Your task to perform on an android device: turn on showing notifications on the lock screen Image 0: 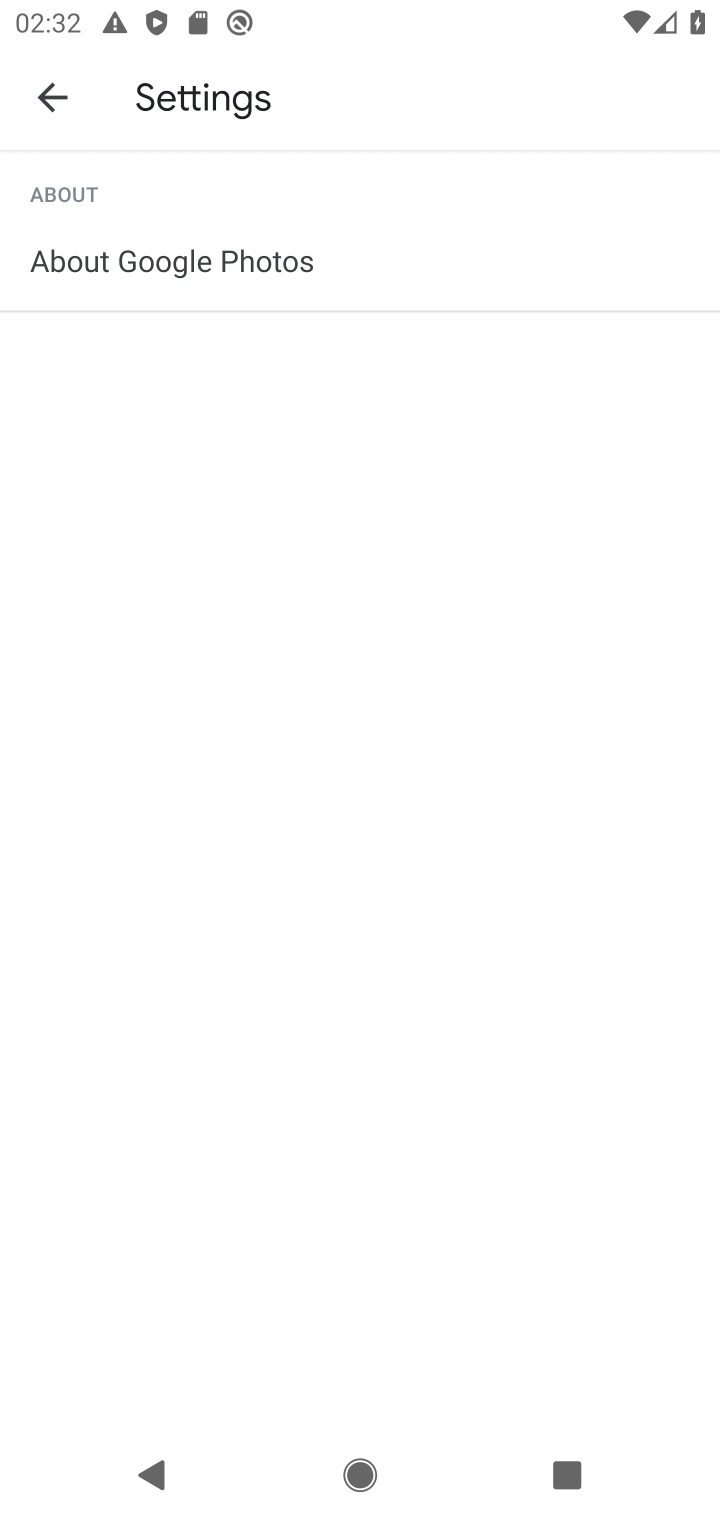
Step 0: press home button
Your task to perform on an android device: turn on showing notifications on the lock screen Image 1: 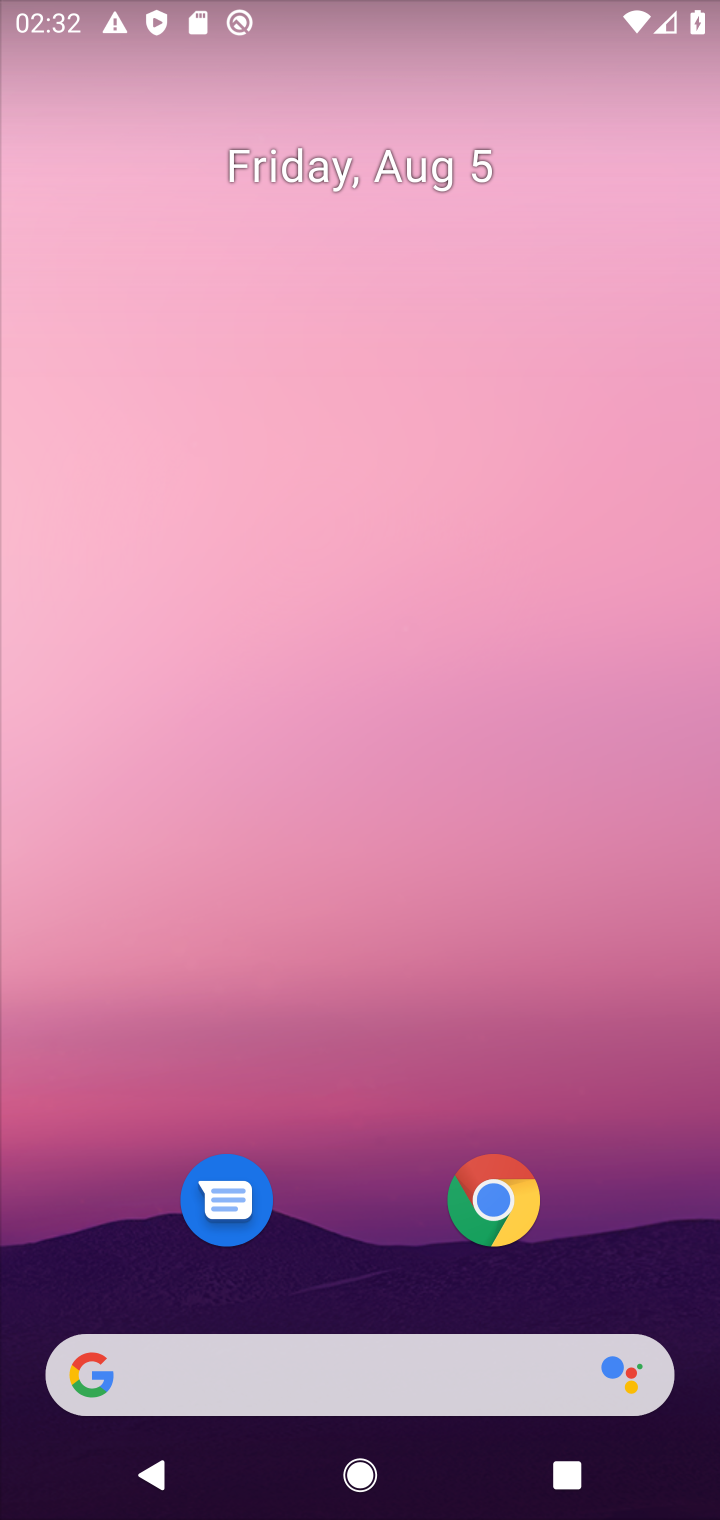
Step 1: drag from (329, 1215) to (228, 327)
Your task to perform on an android device: turn on showing notifications on the lock screen Image 2: 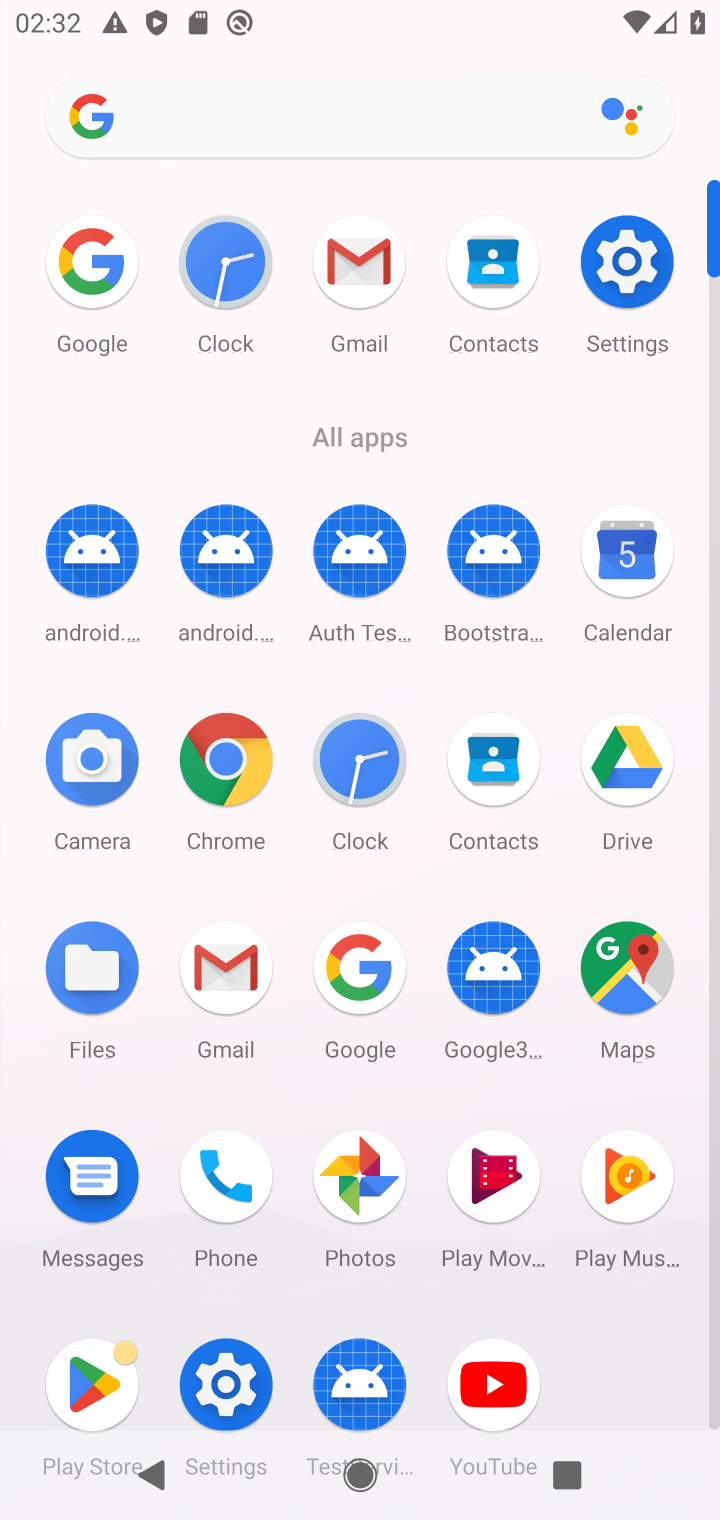
Step 2: click (602, 280)
Your task to perform on an android device: turn on showing notifications on the lock screen Image 3: 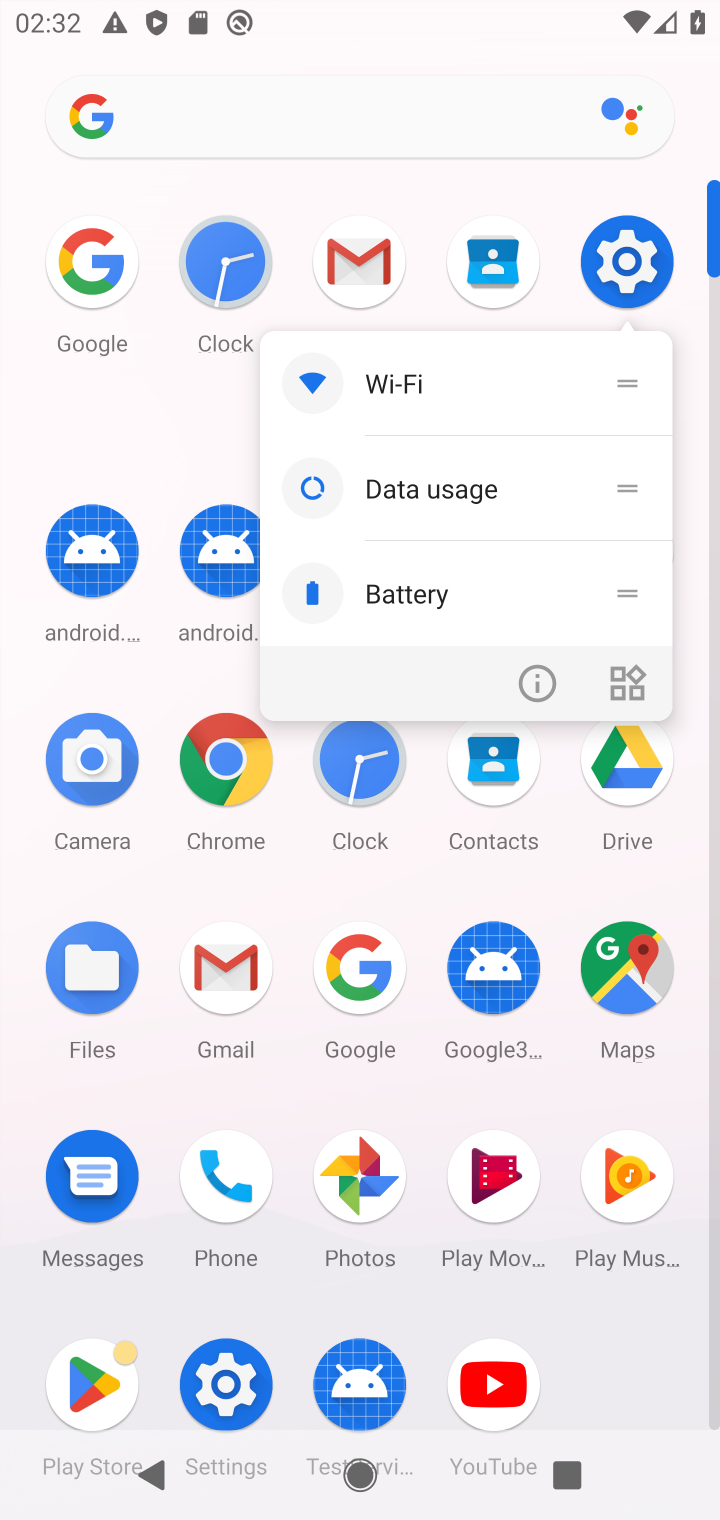
Step 3: click (602, 280)
Your task to perform on an android device: turn on showing notifications on the lock screen Image 4: 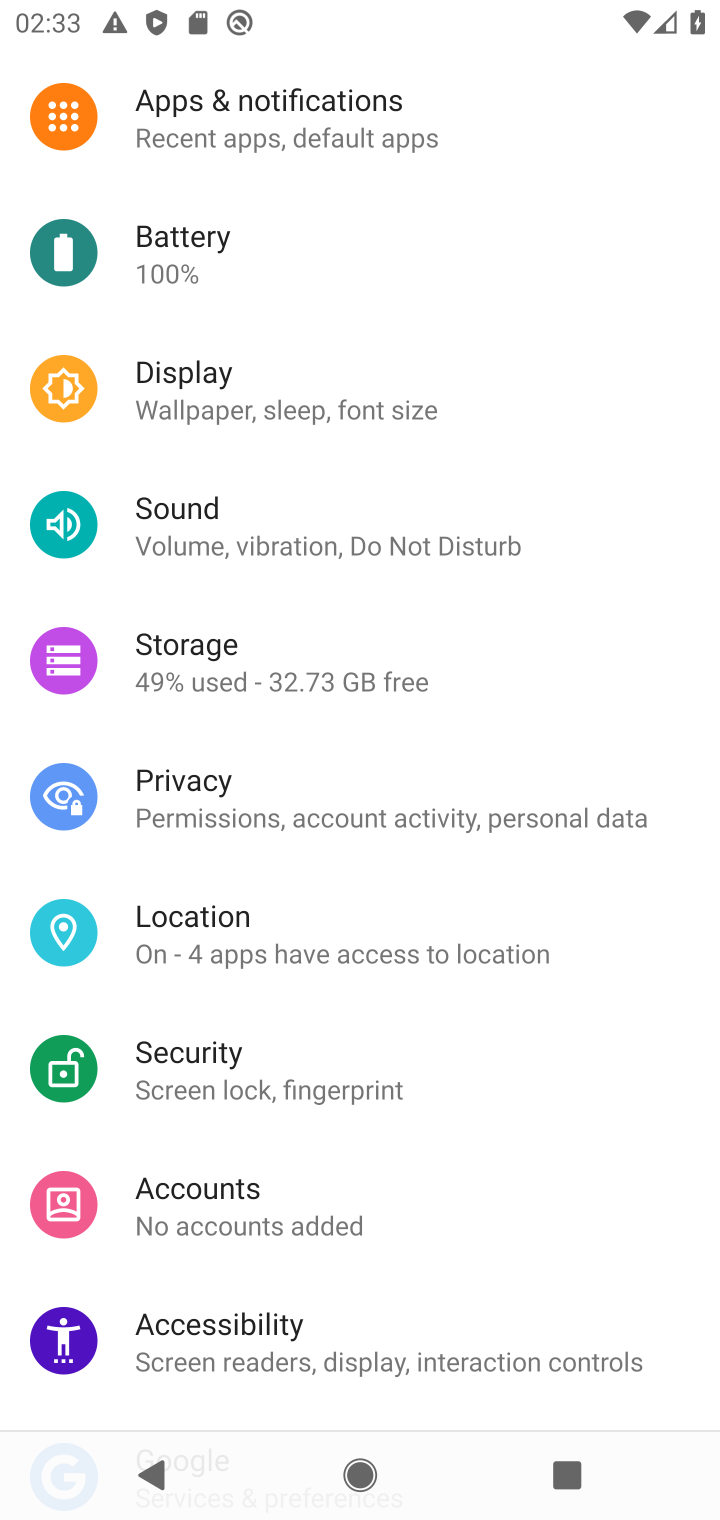
Step 4: click (416, 115)
Your task to perform on an android device: turn on showing notifications on the lock screen Image 5: 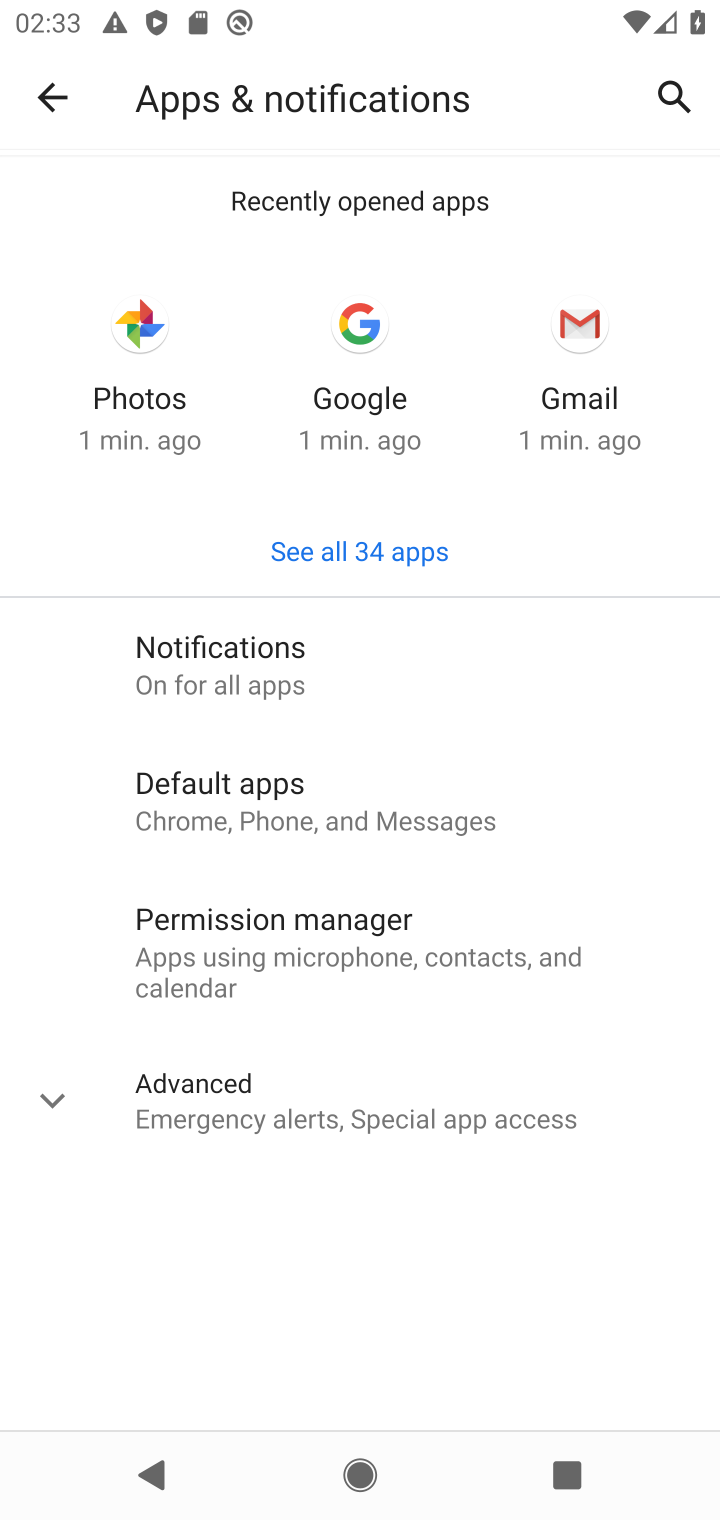
Step 5: click (303, 677)
Your task to perform on an android device: turn on showing notifications on the lock screen Image 6: 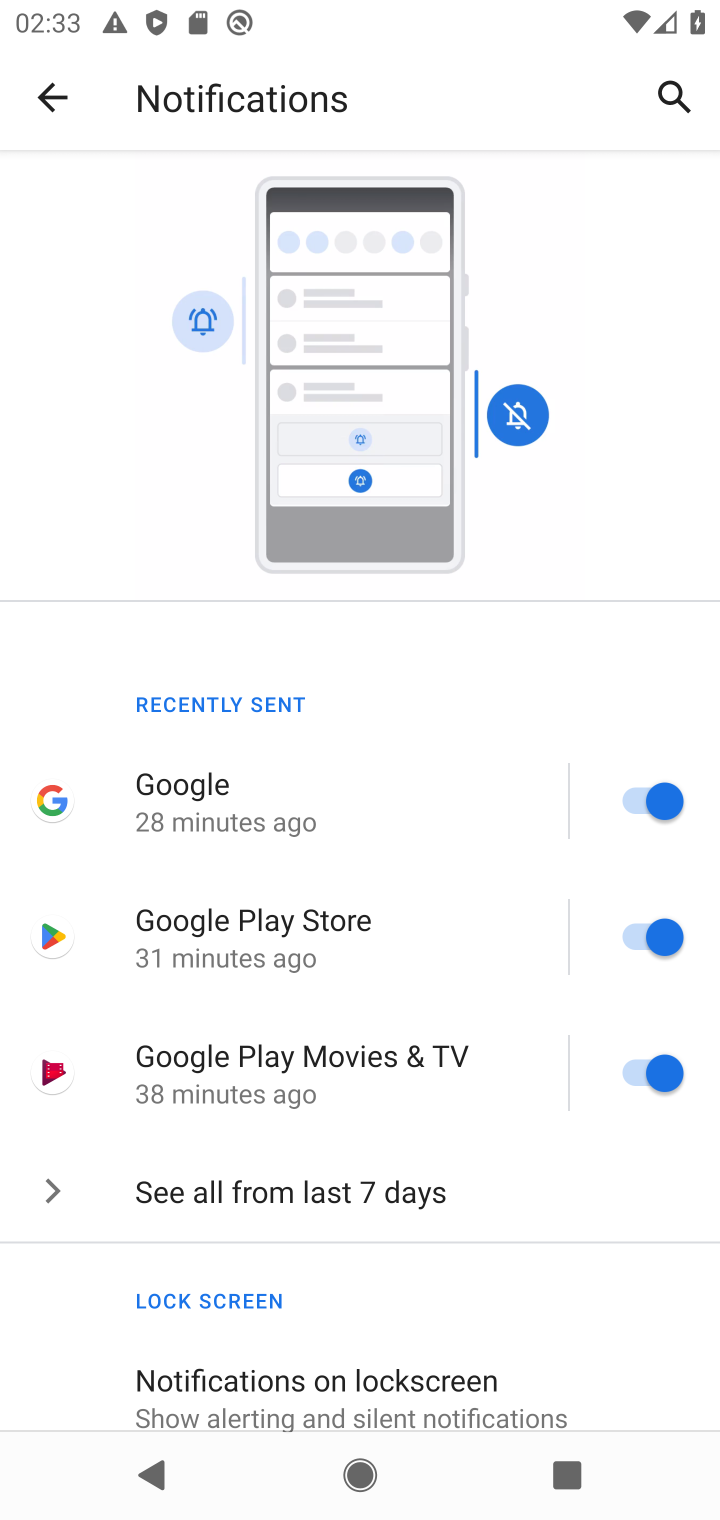
Step 6: click (363, 1359)
Your task to perform on an android device: turn on showing notifications on the lock screen Image 7: 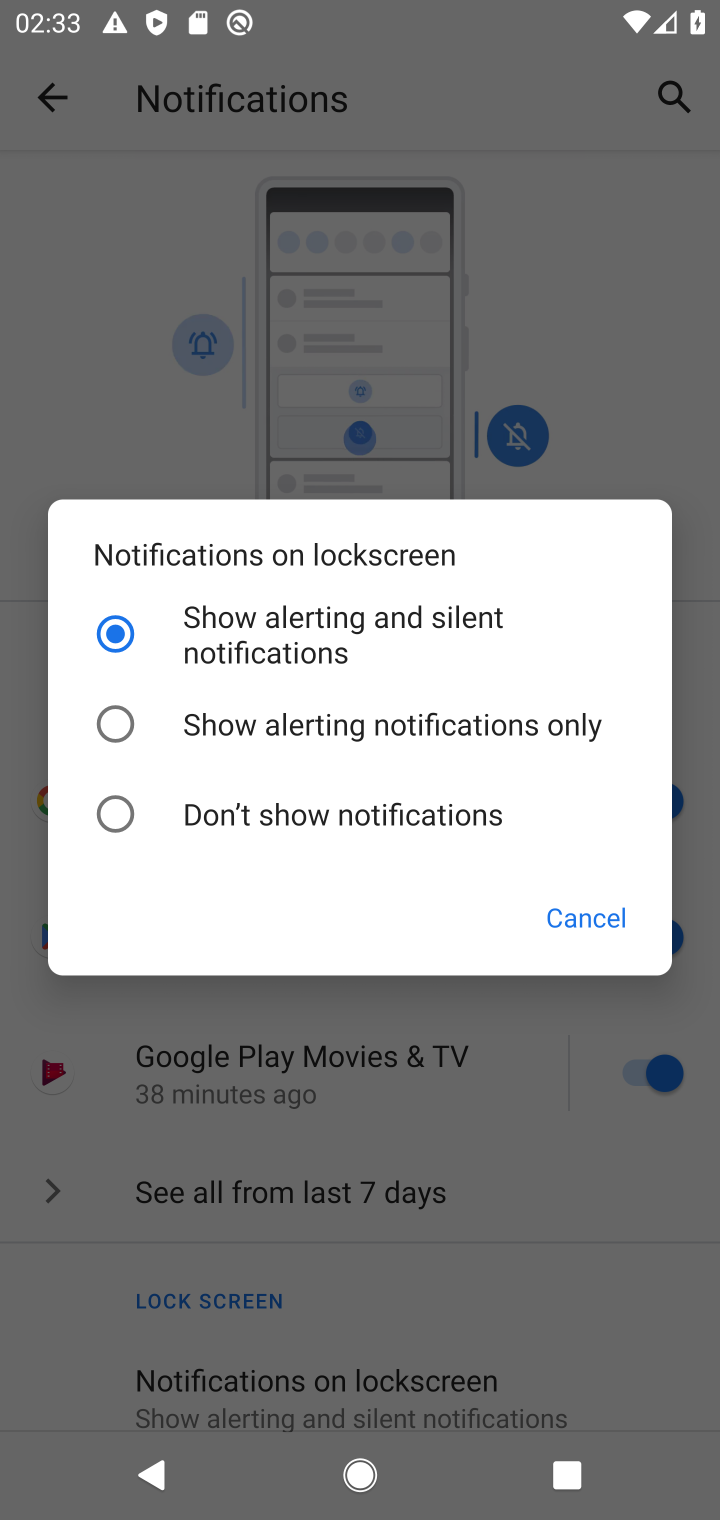
Step 7: task complete